Your task to perform on an android device: delete the emails in spam in the gmail app Image 0: 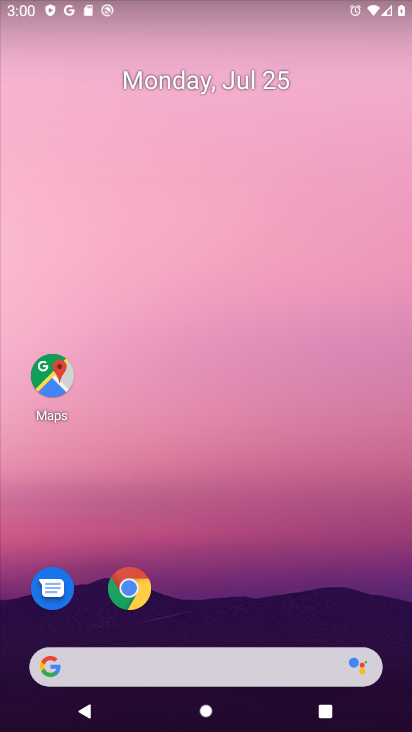
Step 0: drag from (163, 626) to (255, 36)
Your task to perform on an android device: delete the emails in spam in the gmail app Image 1: 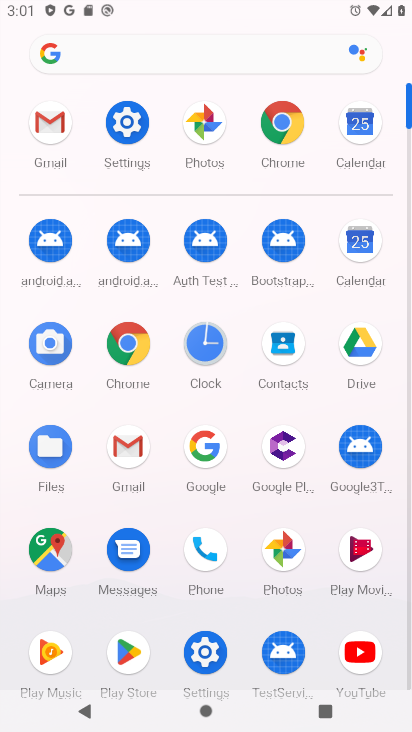
Step 1: click (127, 432)
Your task to perform on an android device: delete the emails in spam in the gmail app Image 2: 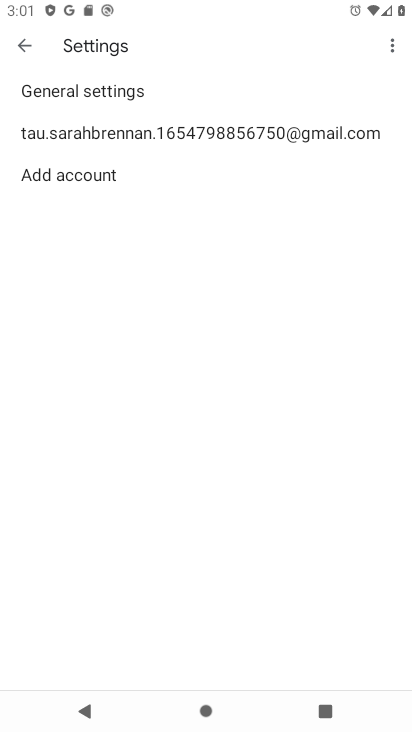
Step 2: click (24, 35)
Your task to perform on an android device: delete the emails in spam in the gmail app Image 3: 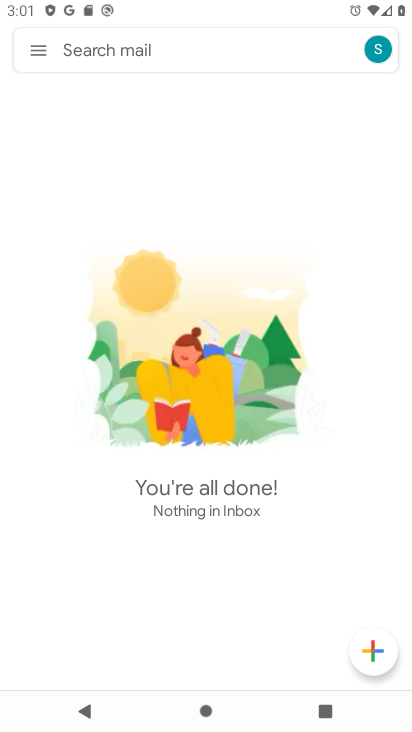
Step 3: click (37, 42)
Your task to perform on an android device: delete the emails in spam in the gmail app Image 4: 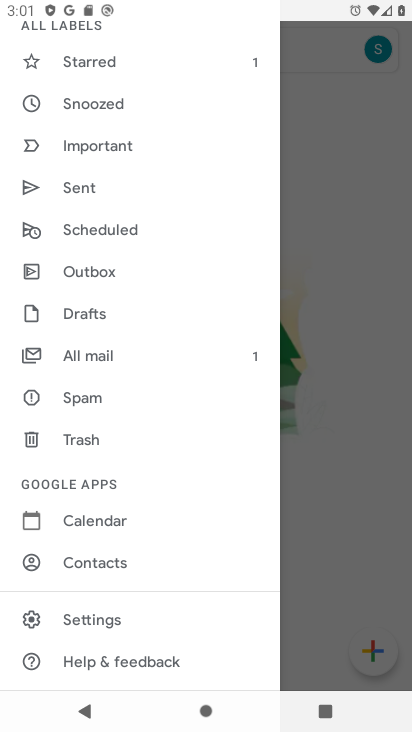
Step 4: click (107, 392)
Your task to perform on an android device: delete the emails in spam in the gmail app Image 5: 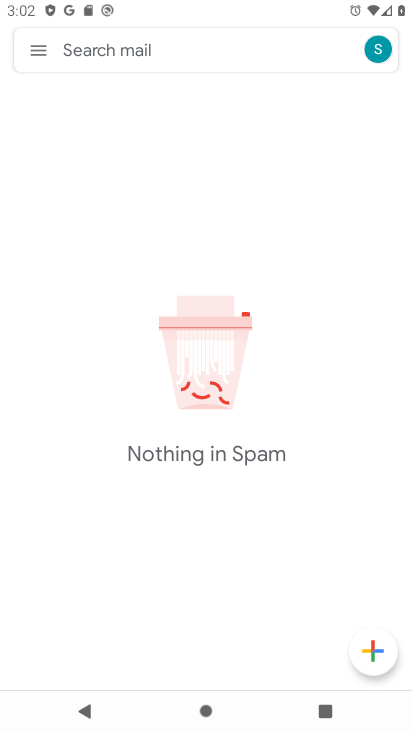
Step 5: task complete